Your task to perform on an android device: Open the Play Movies app and select the watchlist tab. Image 0: 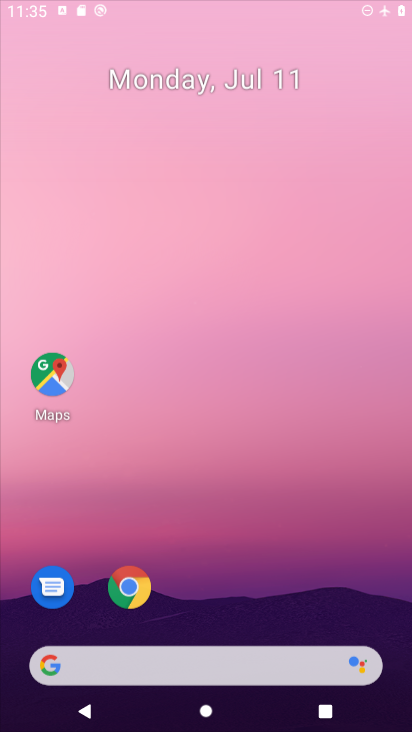
Step 0: click (205, 104)
Your task to perform on an android device: Open the Play Movies app and select the watchlist tab. Image 1: 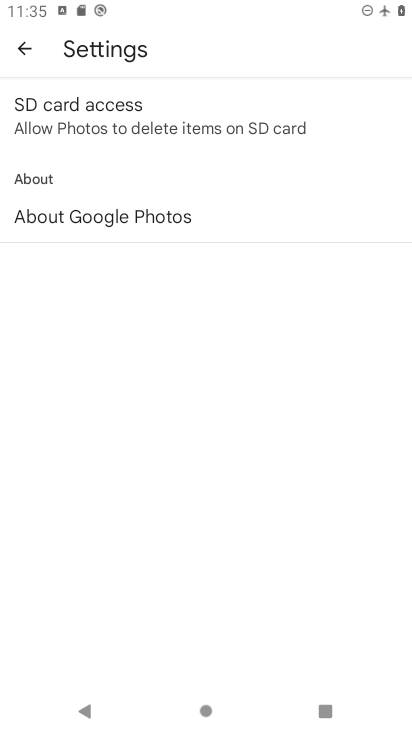
Step 1: press home button
Your task to perform on an android device: Open the Play Movies app and select the watchlist tab. Image 2: 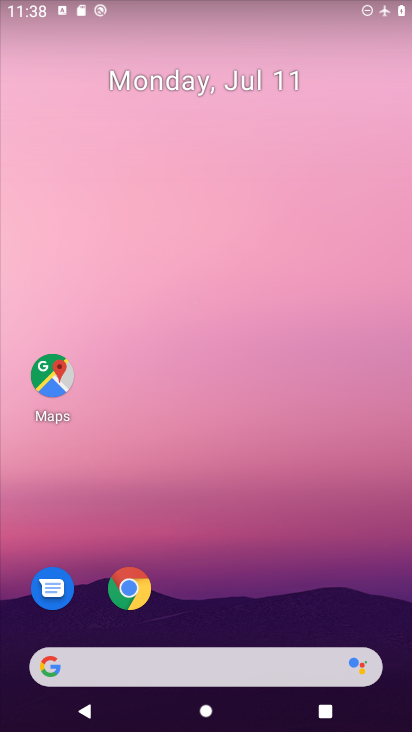
Step 2: drag from (273, 165) to (234, 15)
Your task to perform on an android device: Open the Play Movies app and select the watchlist tab. Image 3: 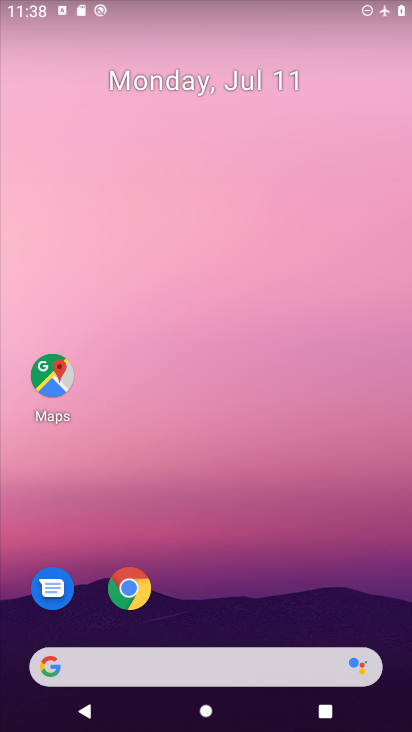
Step 3: drag from (338, 601) to (221, 38)
Your task to perform on an android device: Open the Play Movies app and select the watchlist tab. Image 4: 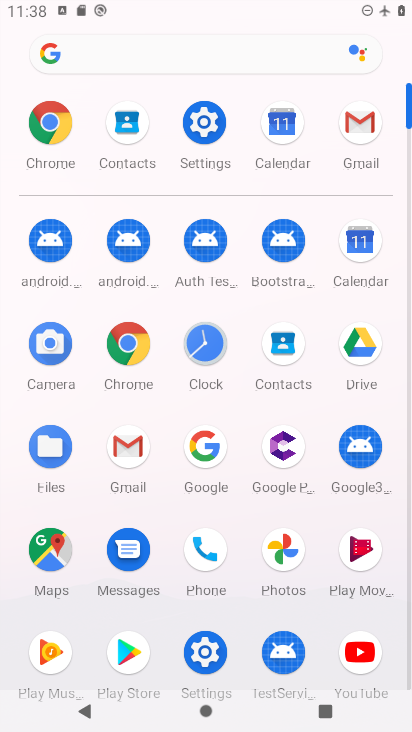
Step 4: click (362, 543)
Your task to perform on an android device: Open the Play Movies app and select the watchlist tab. Image 5: 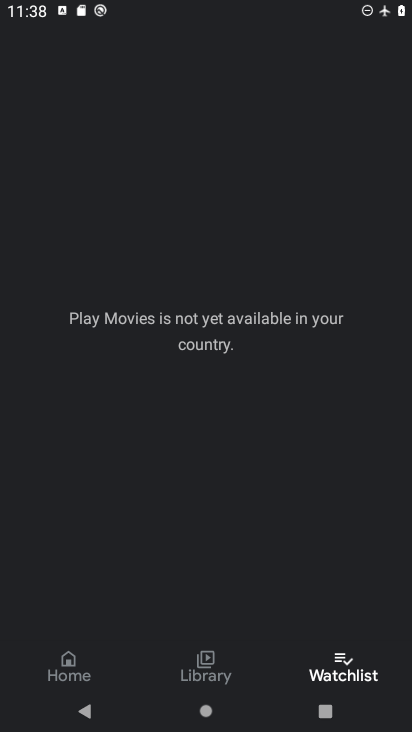
Step 5: task complete